Your task to perform on an android device: Go to Google maps Image 0: 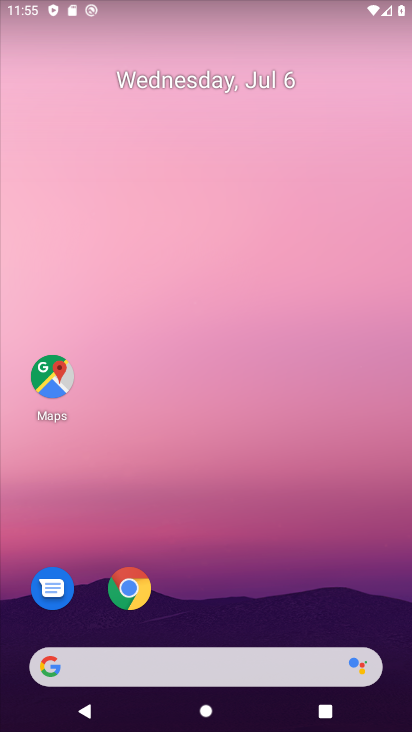
Step 0: drag from (200, 589) to (293, 34)
Your task to perform on an android device: Go to Google maps Image 1: 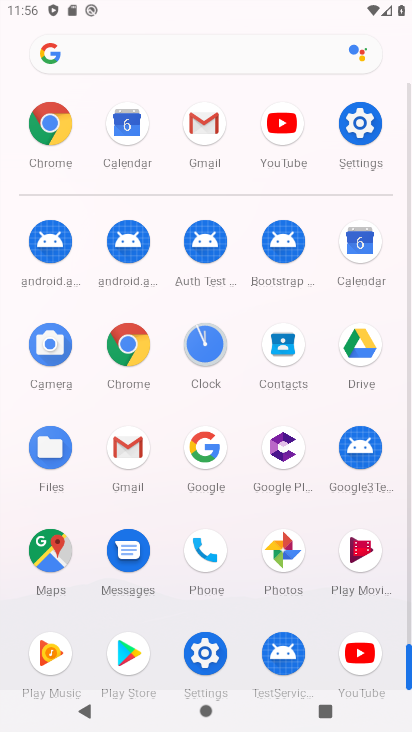
Step 1: click (36, 552)
Your task to perform on an android device: Go to Google maps Image 2: 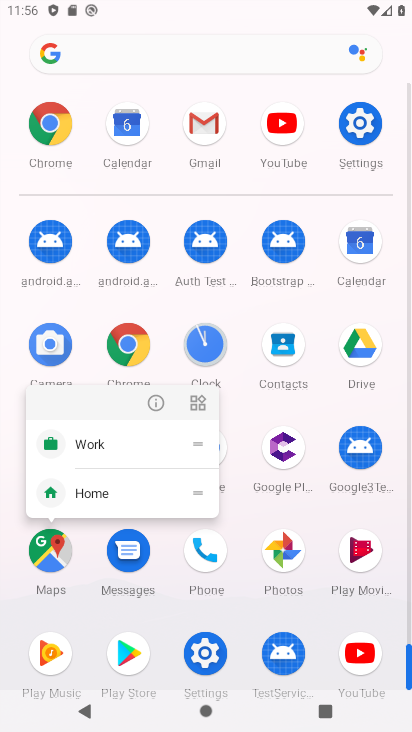
Step 2: click (160, 401)
Your task to perform on an android device: Go to Google maps Image 3: 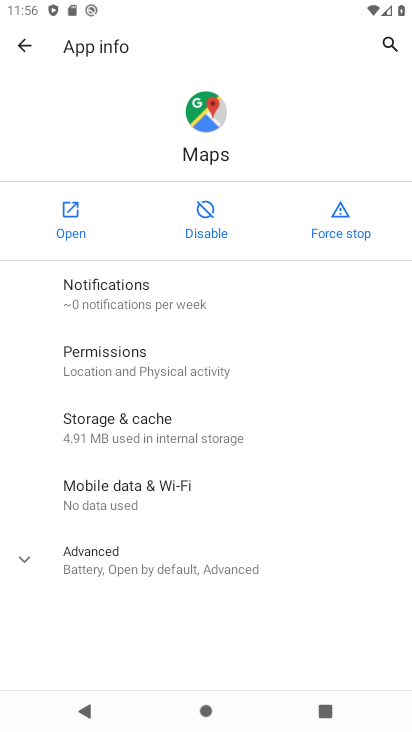
Step 3: click (66, 200)
Your task to perform on an android device: Go to Google maps Image 4: 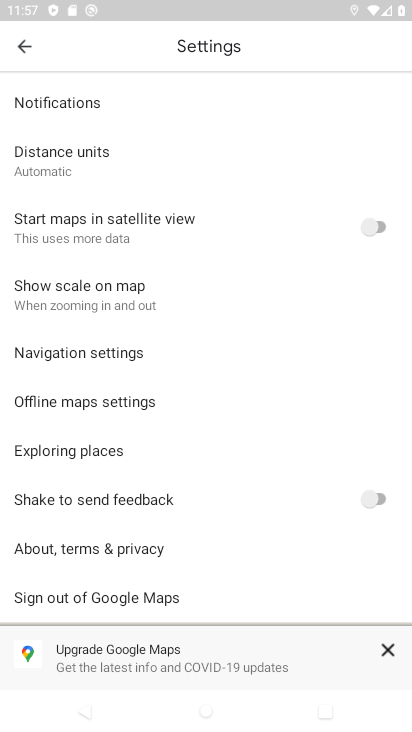
Step 4: drag from (143, 157) to (231, 485)
Your task to perform on an android device: Go to Google maps Image 5: 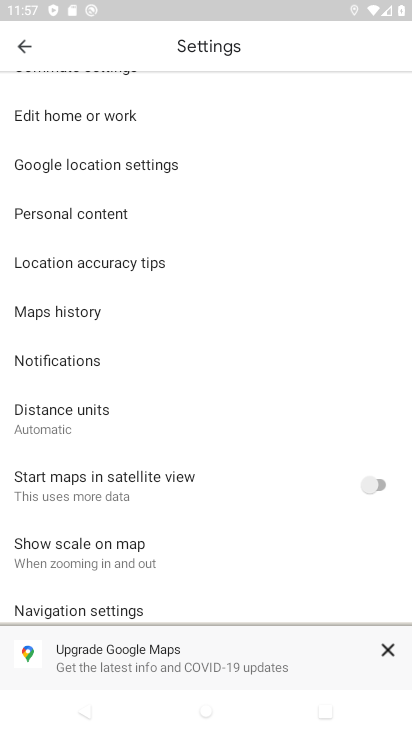
Step 5: drag from (149, 140) to (281, 731)
Your task to perform on an android device: Go to Google maps Image 6: 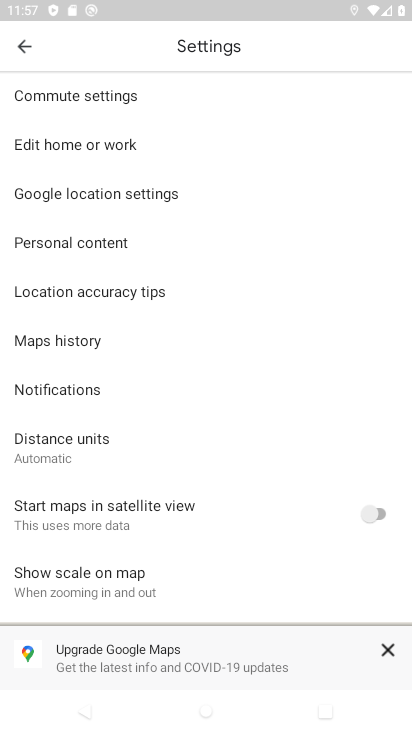
Step 6: click (35, 40)
Your task to perform on an android device: Go to Google maps Image 7: 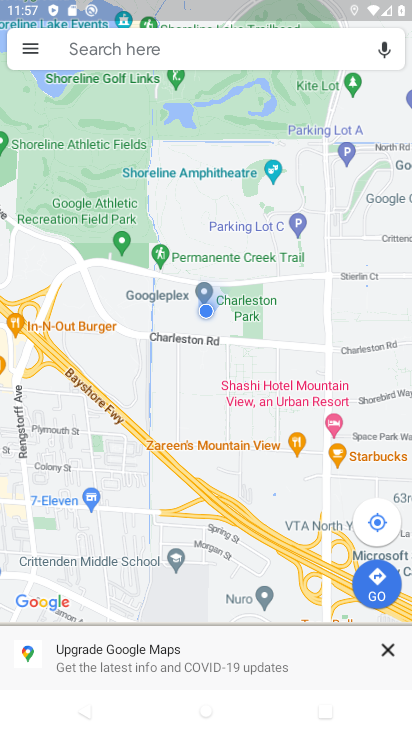
Step 7: task complete